Your task to perform on an android device: open app "The Home Depot" (install if not already installed) Image 0: 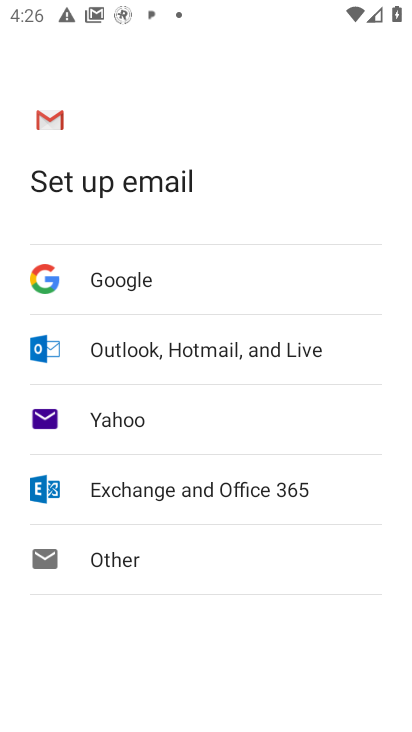
Step 0: press home button
Your task to perform on an android device: open app "The Home Depot" (install if not already installed) Image 1: 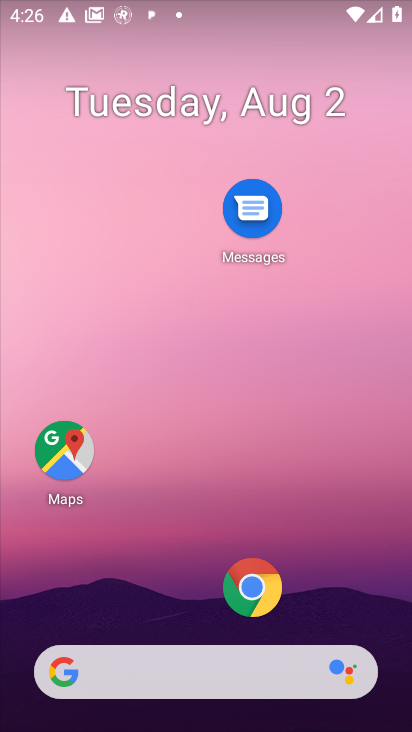
Step 1: drag from (206, 510) to (214, 464)
Your task to perform on an android device: open app "The Home Depot" (install if not already installed) Image 2: 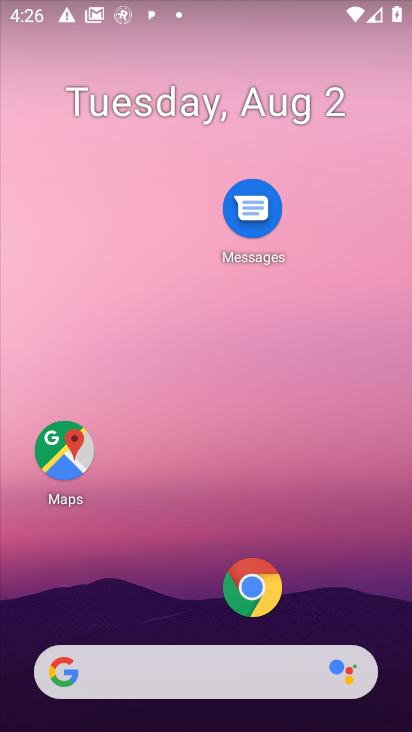
Step 2: drag from (166, 578) to (174, 136)
Your task to perform on an android device: open app "The Home Depot" (install if not already installed) Image 3: 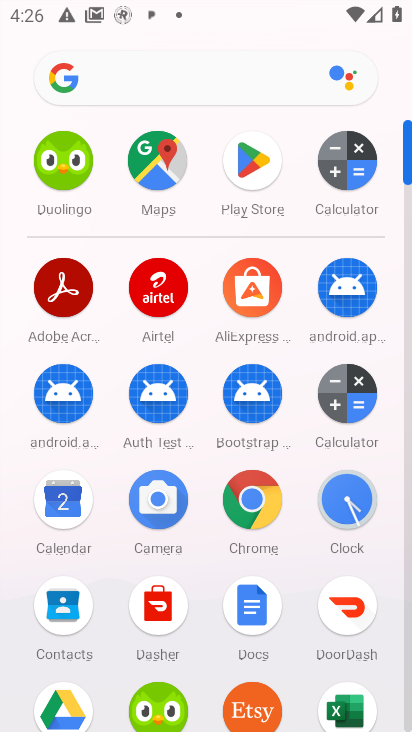
Step 3: click (235, 172)
Your task to perform on an android device: open app "The Home Depot" (install if not already installed) Image 4: 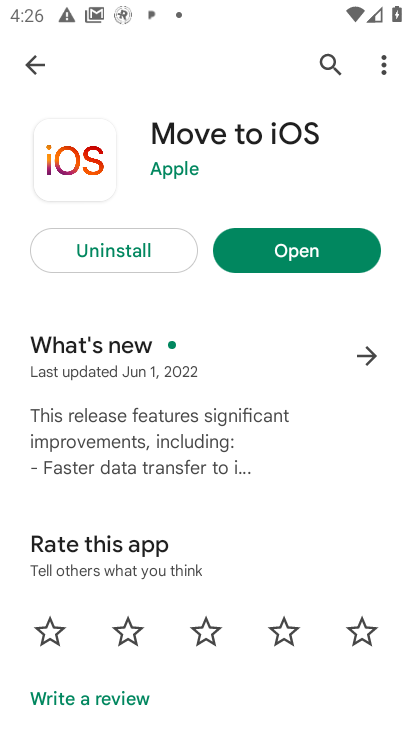
Step 4: click (339, 67)
Your task to perform on an android device: open app "The Home Depot" (install if not already installed) Image 5: 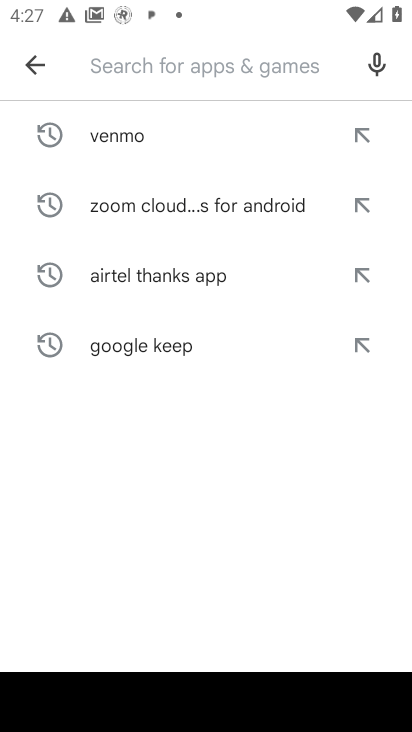
Step 5: type "The Home Depot"
Your task to perform on an android device: open app "The Home Depot" (install if not already installed) Image 6: 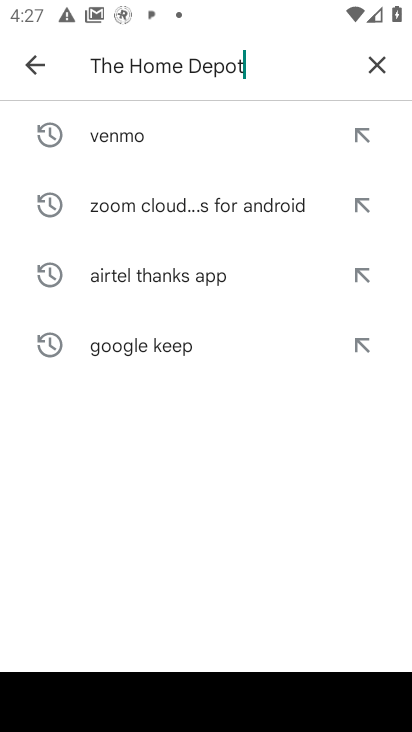
Step 6: type ""
Your task to perform on an android device: open app "The Home Depot" (install if not already installed) Image 7: 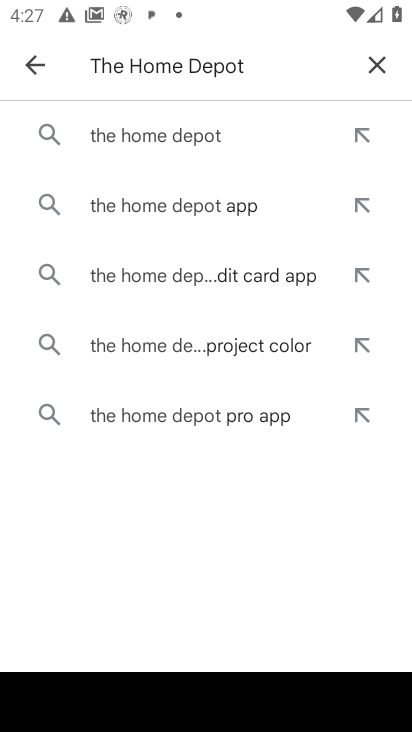
Step 7: click (193, 133)
Your task to perform on an android device: open app "The Home Depot" (install if not already installed) Image 8: 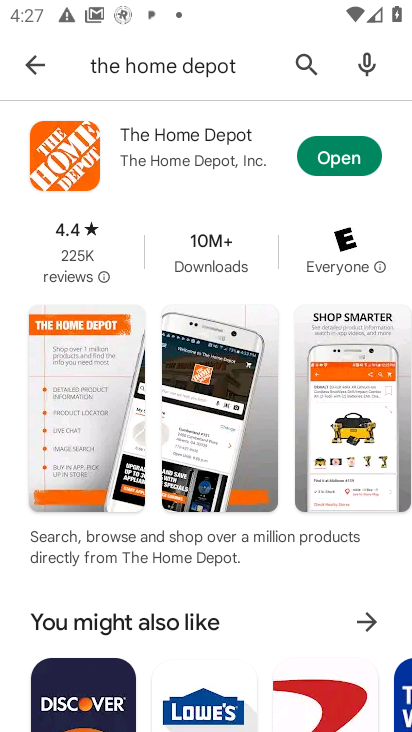
Step 8: click (333, 170)
Your task to perform on an android device: open app "The Home Depot" (install if not already installed) Image 9: 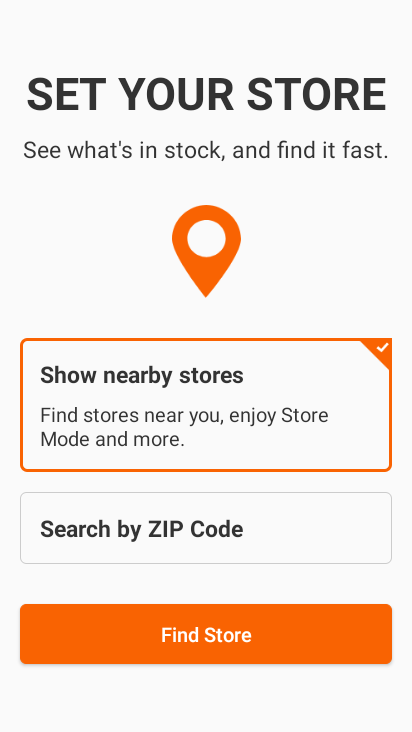
Step 9: task complete